Your task to perform on an android device: Turn on the flashlight Image 0: 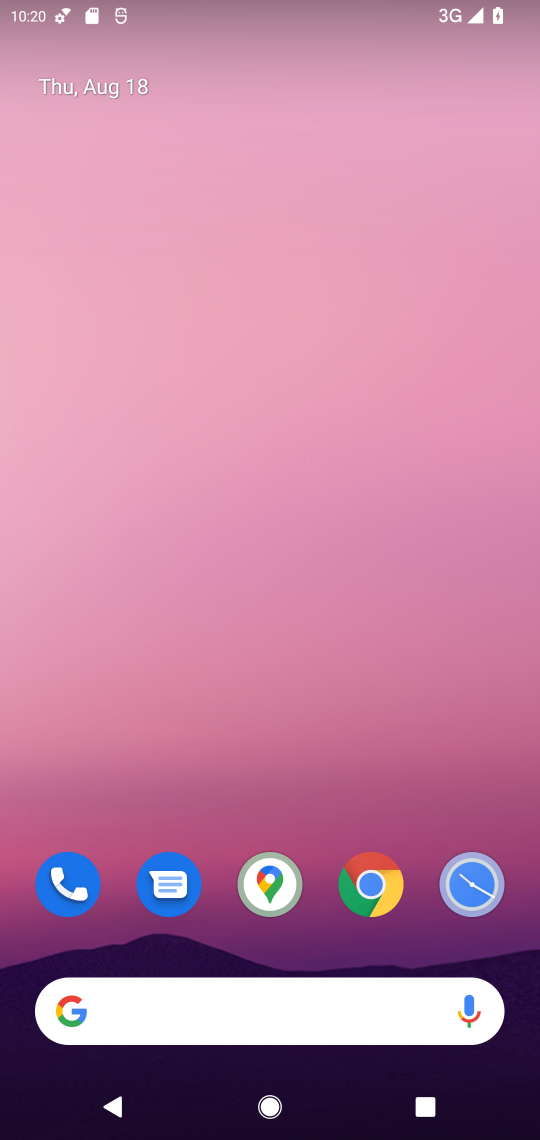
Step 0: drag from (210, 661) to (191, 172)
Your task to perform on an android device: Turn on the flashlight Image 1: 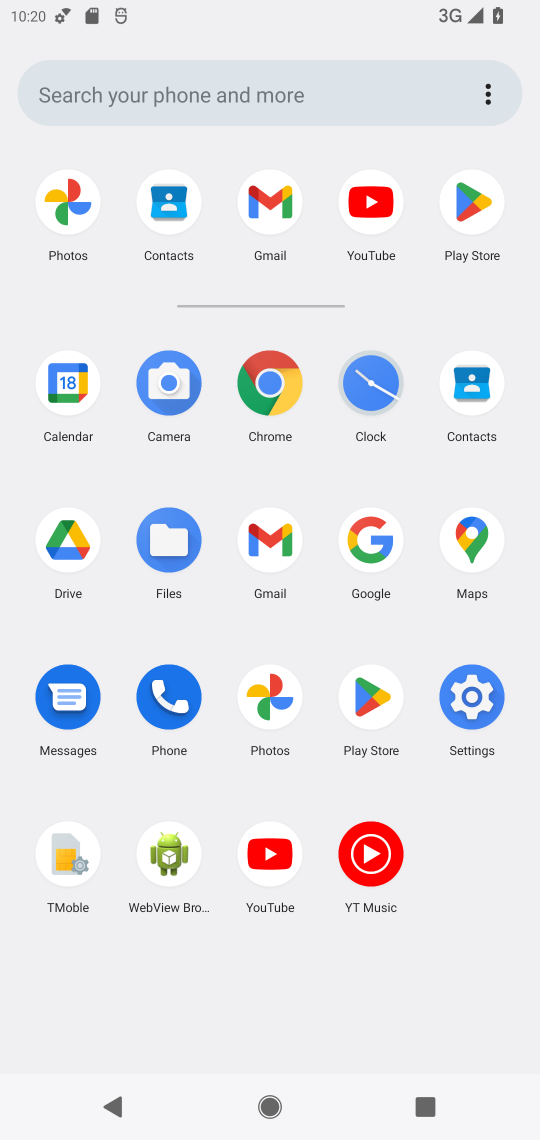
Step 1: click (470, 692)
Your task to perform on an android device: Turn on the flashlight Image 2: 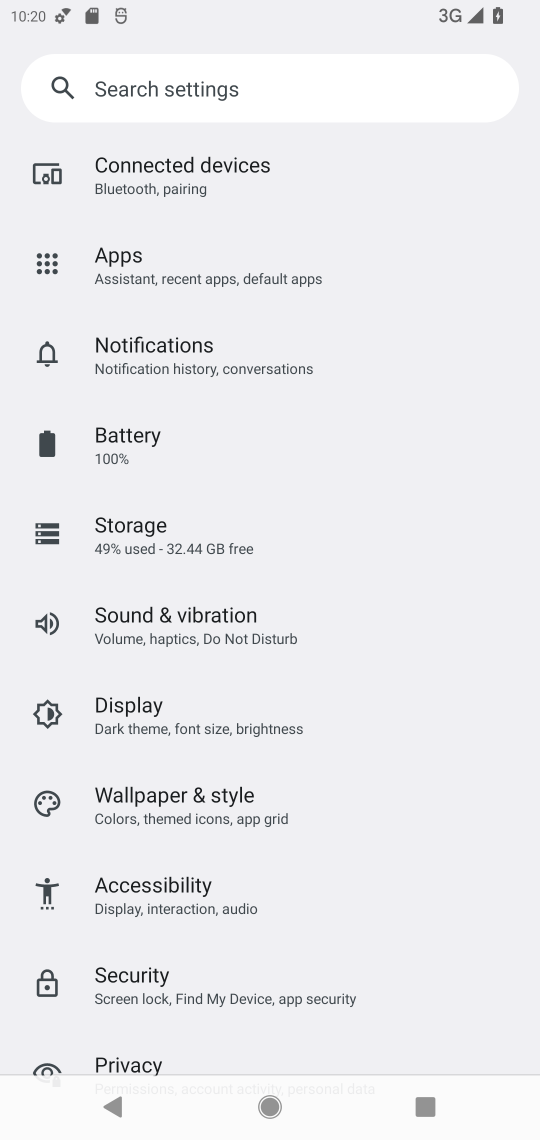
Step 2: task complete